Your task to perform on an android device: Is it going to rain today? Image 0: 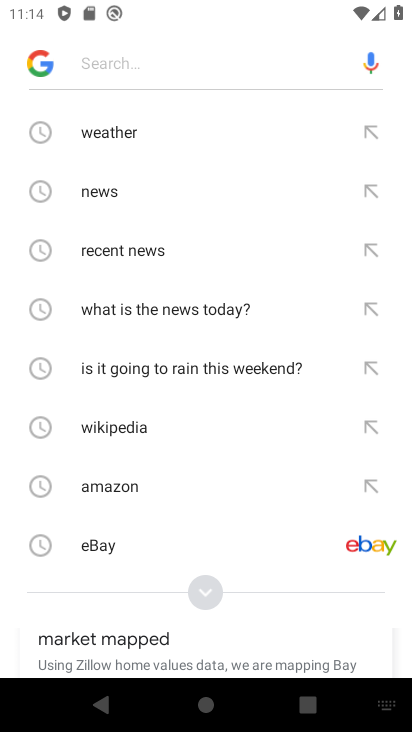
Step 0: drag from (204, 447) to (223, 148)
Your task to perform on an android device: Is it going to rain today? Image 1: 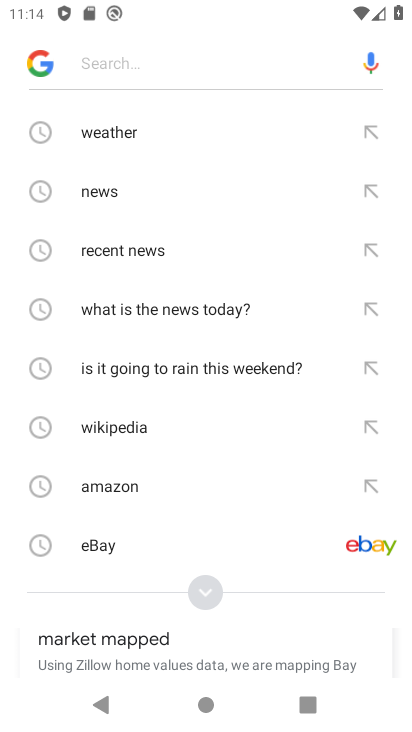
Step 1: click (154, 70)
Your task to perform on an android device: Is it going to rain today? Image 2: 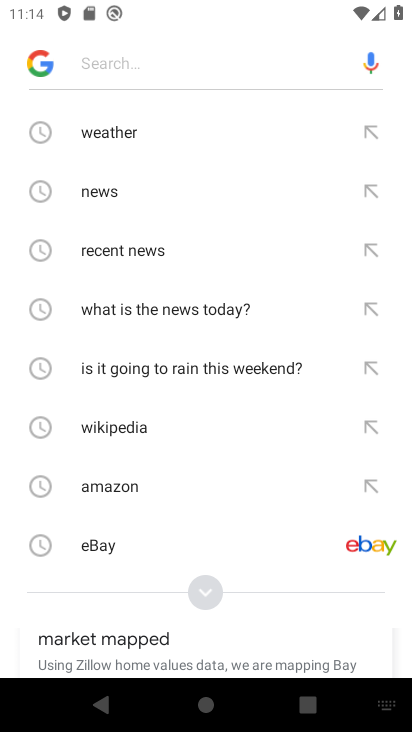
Step 2: type ""
Your task to perform on an android device: Is it going to rain today? Image 3: 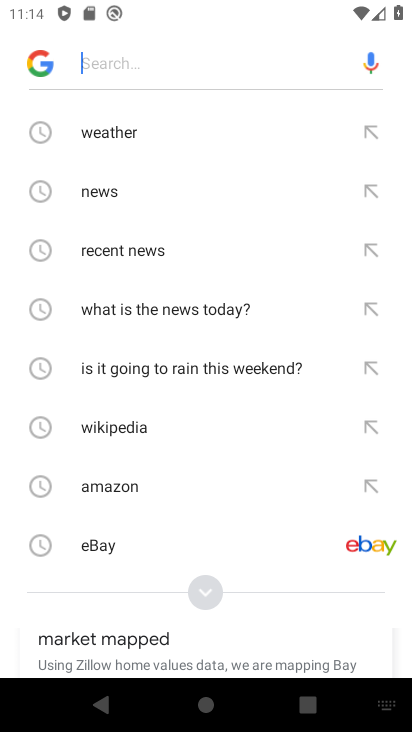
Step 3: type "rain today"
Your task to perform on an android device: Is it going to rain today? Image 4: 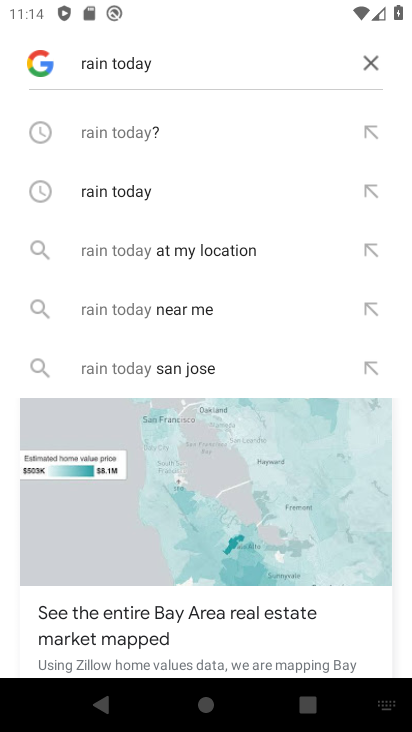
Step 4: click (189, 133)
Your task to perform on an android device: Is it going to rain today? Image 5: 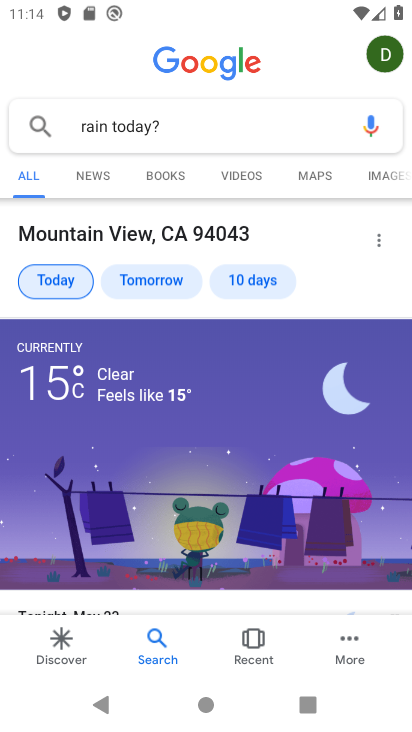
Step 5: task complete